Your task to perform on an android device: see tabs open on other devices in the chrome app Image 0: 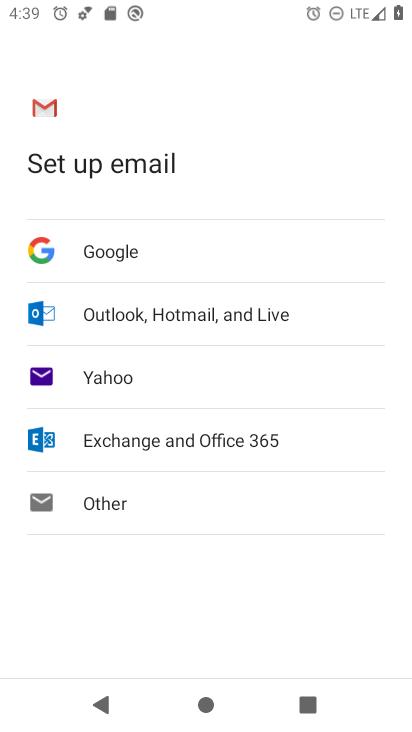
Step 0: press home button
Your task to perform on an android device: see tabs open on other devices in the chrome app Image 1: 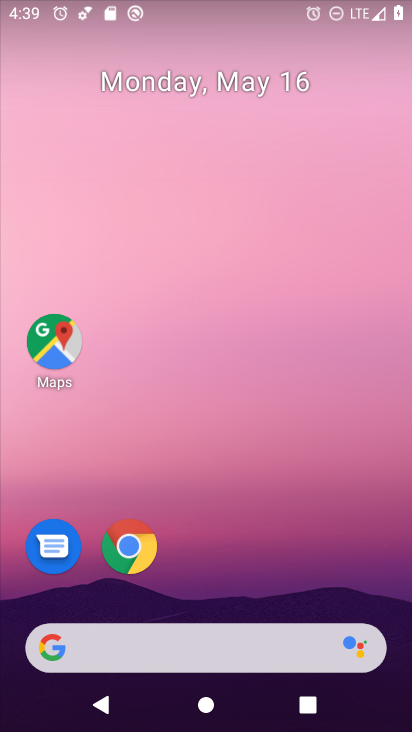
Step 1: drag from (328, 567) to (326, 139)
Your task to perform on an android device: see tabs open on other devices in the chrome app Image 2: 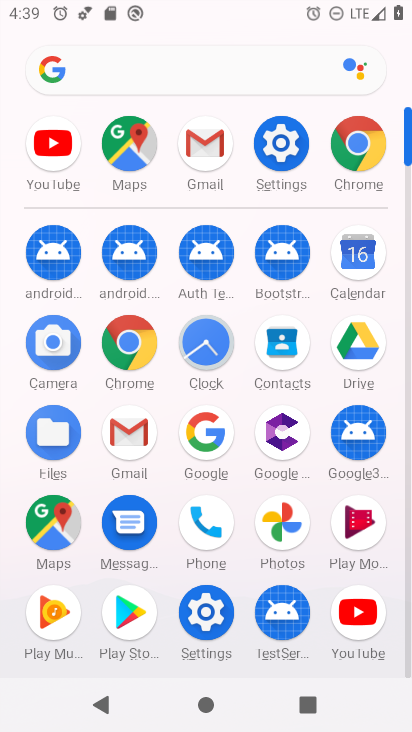
Step 2: click (136, 349)
Your task to perform on an android device: see tabs open on other devices in the chrome app Image 3: 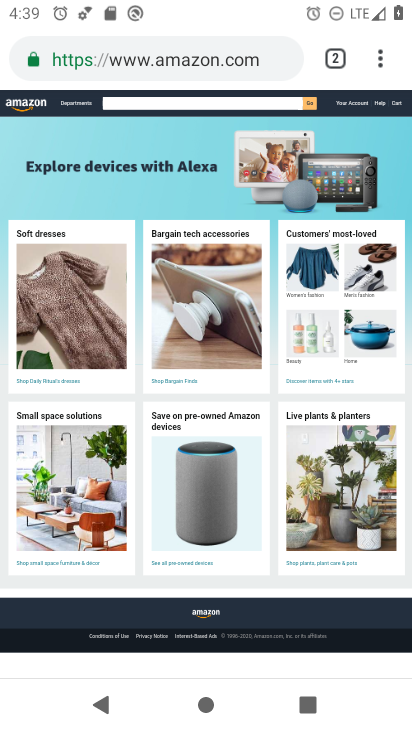
Step 3: click (384, 54)
Your task to perform on an android device: see tabs open on other devices in the chrome app Image 4: 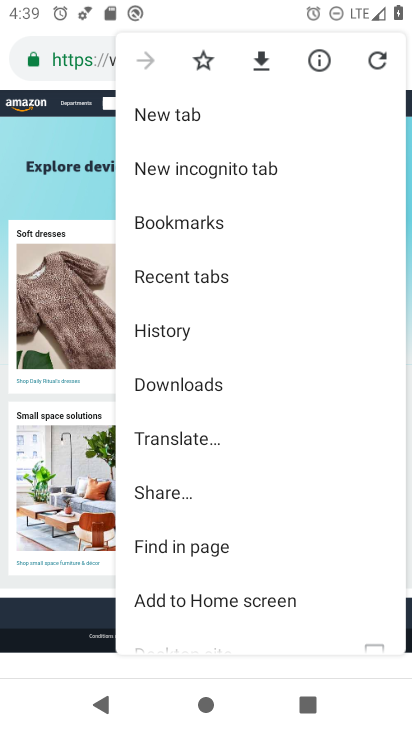
Step 4: drag from (315, 496) to (313, 346)
Your task to perform on an android device: see tabs open on other devices in the chrome app Image 5: 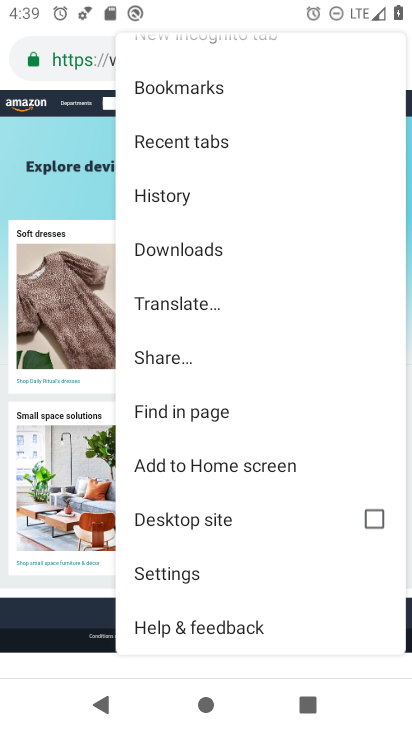
Step 5: drag from (304, 491) to (313, 404)
Your task to perform on an android device: see tabs open on other devices in the chrome app Image 6: 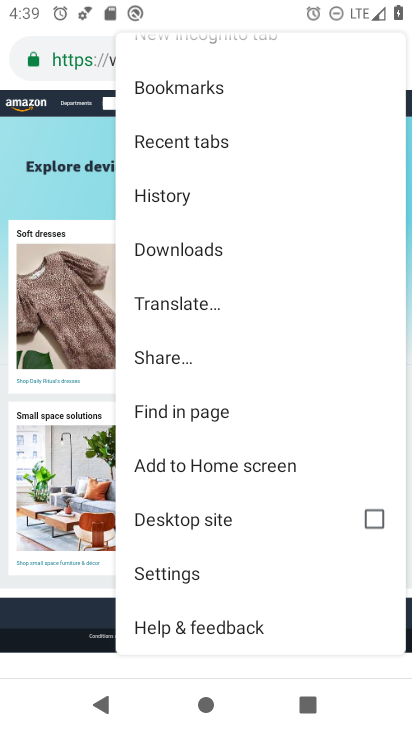
Step 6: click (211, 143)
Your task to perform on an android device: see tabs open on other devices in the chrome app Image 7: 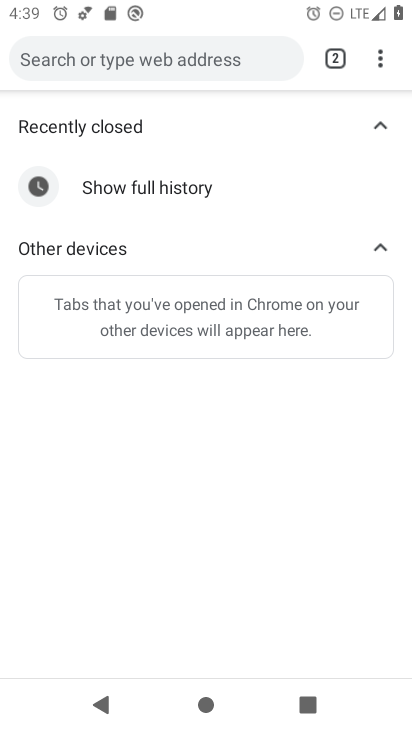
Step 7: click (333, 54)
Your task to perform on an android device: see tabs open on other devices in the chrome app Image 8: 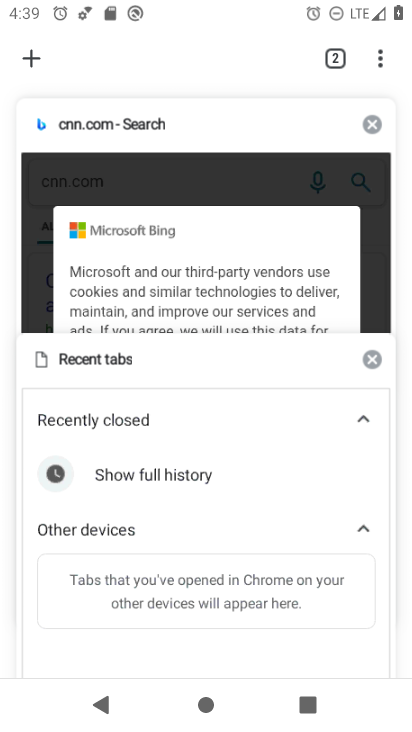
Step 8: task complete